Your task to perform on an android device: Go to Yahoo.com Image 0: 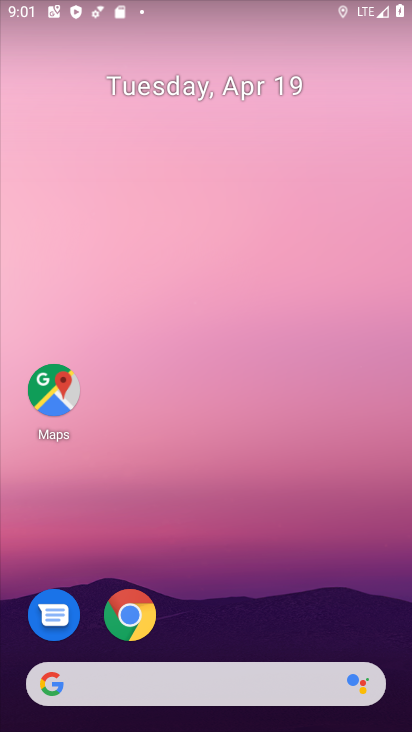
Step 0: click (128, 618)
Your task to perform on an android device: Go to Yahoo.com Image 1: 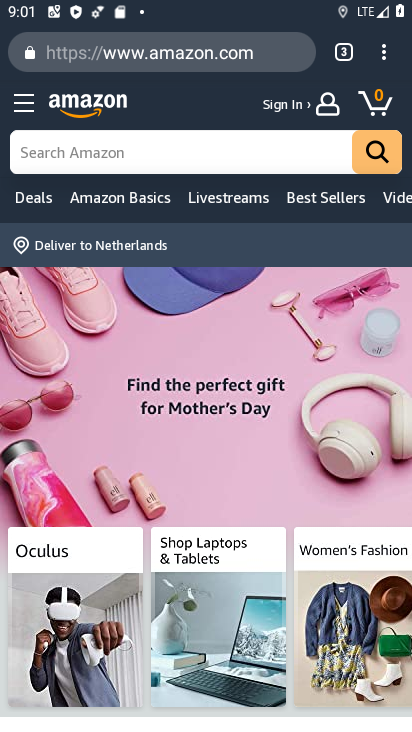
Step 1: click (356, 54)
Your task to perform on an android device: Go to Yahoo.com Image 2: 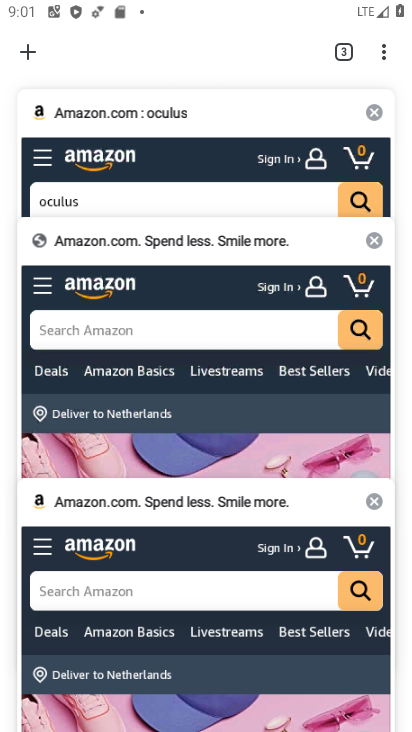
Step 2: click (35, 60)
Your task to perform on an android device: Go to Yahoo.com Image 3: 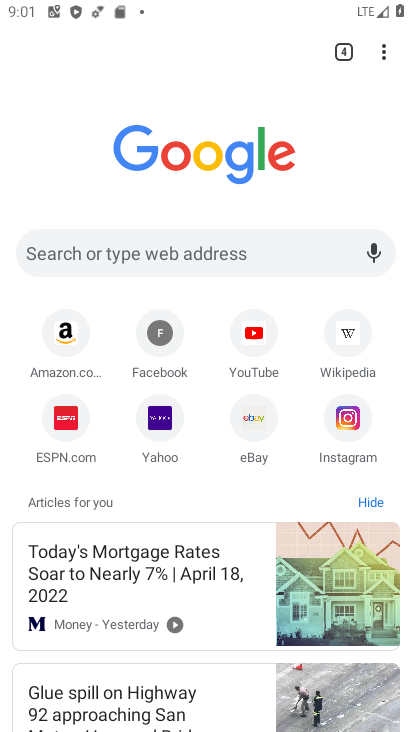
Step 3: click (159, 427)
Your task to perform on an android device: Go to Yahoo.com Image 4: 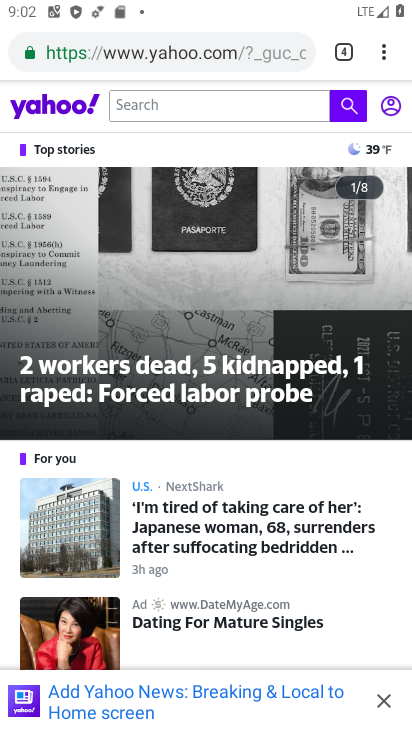
Step 4: task complete